Your task to perform on an android device: turn on airplane mode Image 0: 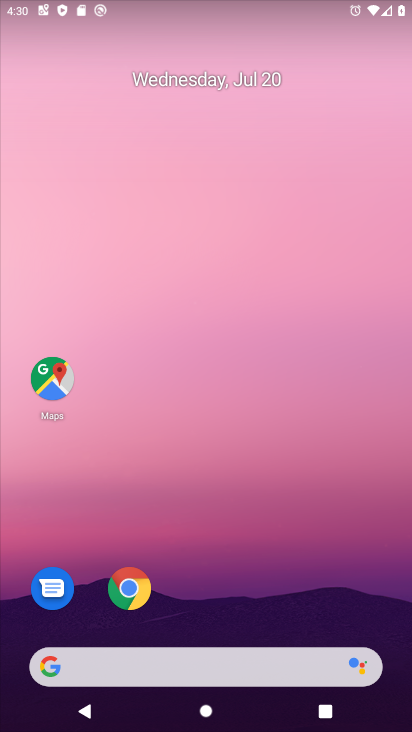
Step 0: drag from (252, 583) to (230, 45)
Your task to perform on an android device: turn on airplane mode Image 1: 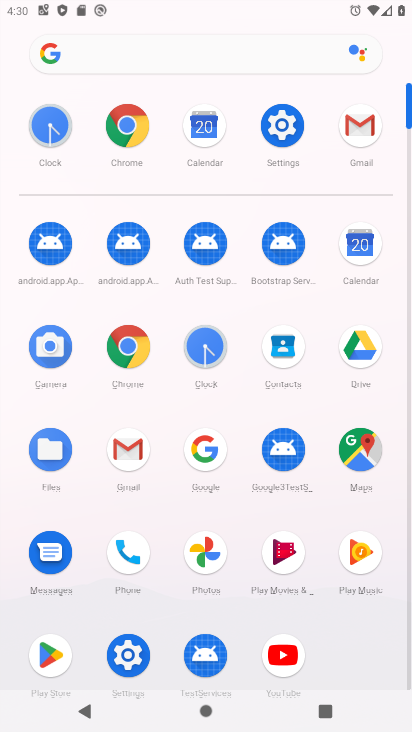
Step 1: click (292, 119)
Your task to perform on an android device: turn on airplane mode Image 2: 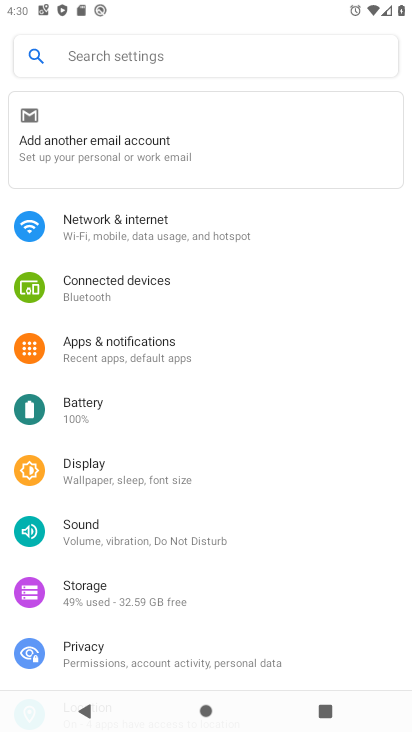
Step 2: click (121, 228)
Your task to perform on an android device: turn on airplane mode Image 3: 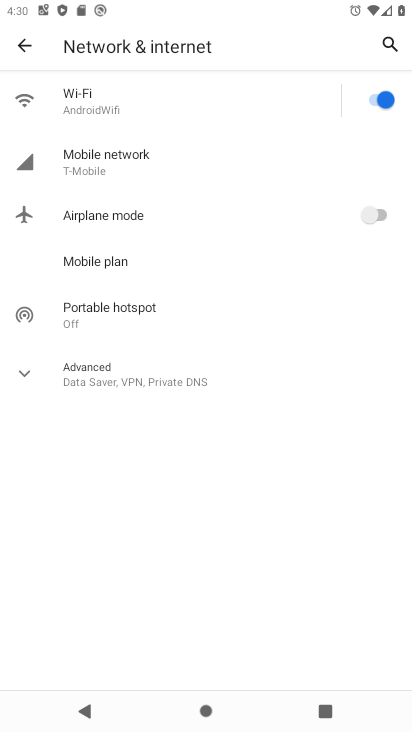
Step 3: click (167, 214)
Your task to perform on an android device: turn on airplane mode Image 4: 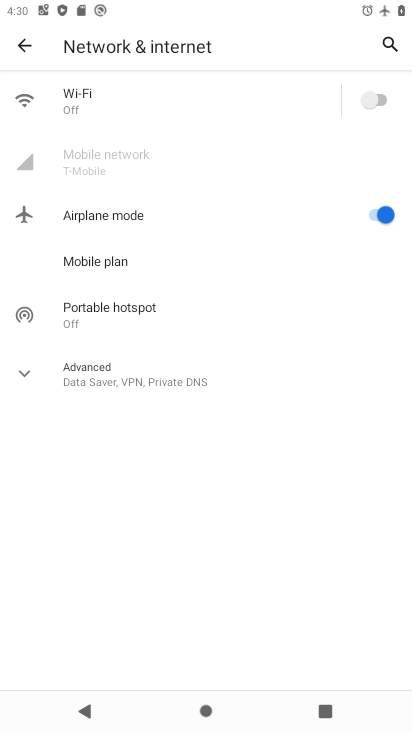
Step 4: task complete